Your task to perform on an android device: Open the calendar app, open the side menu, and click the "Day" option Image 0: 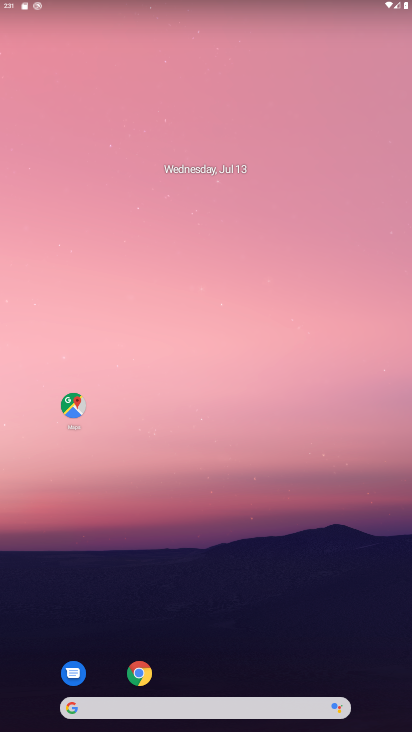
Step 0: drag from (207, 645) to (248, 198)
Your task to perform on an android device: Open the calendar app, open the side menu, and click the "Day" option Image 1: 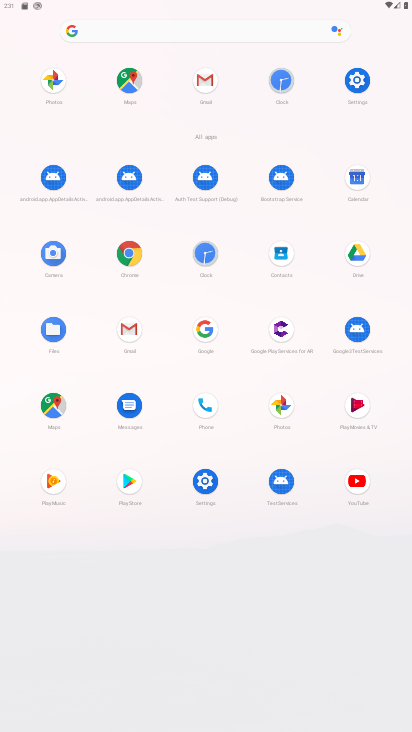
Step 1: click (355, 177)
Your task to perform on an android device: Open the calendar app, open the side menu, and click the "Day" option Image 2: 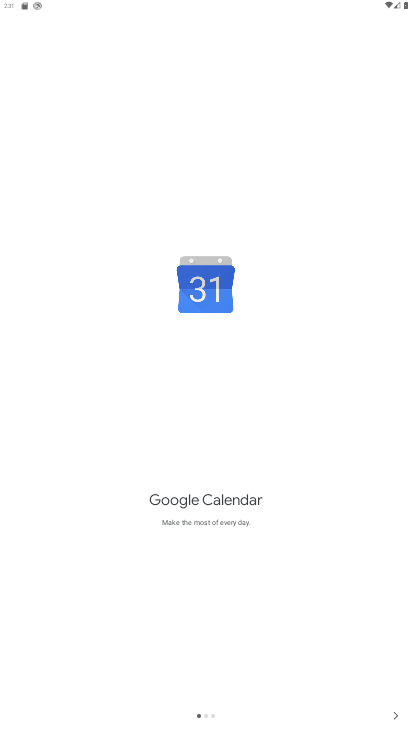
Step 2: click (394, 712)
Your task to perform on an android device: Open the calendar app, open the side menu, and click the "Day" option Image 3: 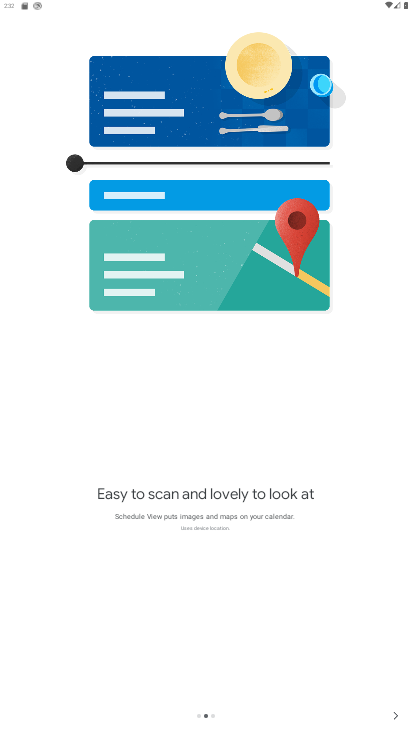
Step 3: click (394, 712)
Your task to perform on an android device: Open the calendar app, open the side menu, and click the "Day" option Image 4: 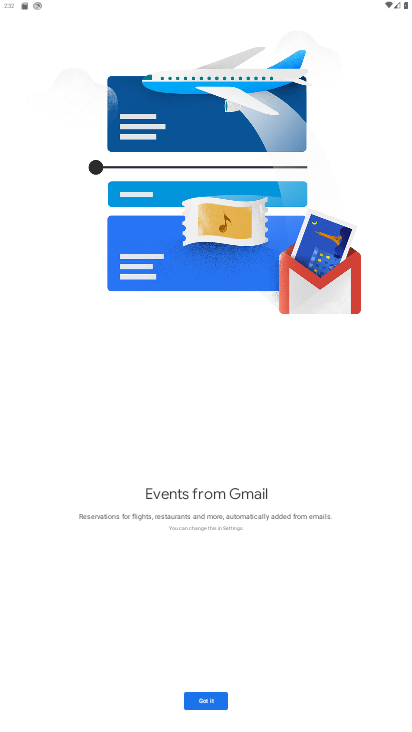
Step 4: click (206, 710)
Your task to perform on an android device: Open the calendar app, open the side menu, and click the "Day" option Image 5: 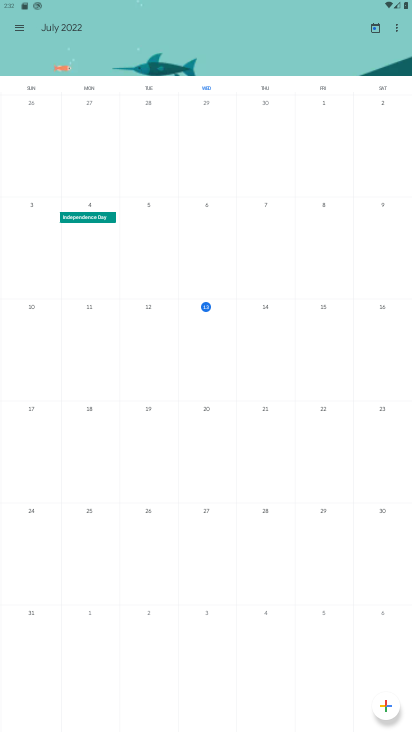
Step 5: click (26, 23)
Your task to perform on an android device: Open the calendar app, open the side menu, and click the "Day" option Image 6: 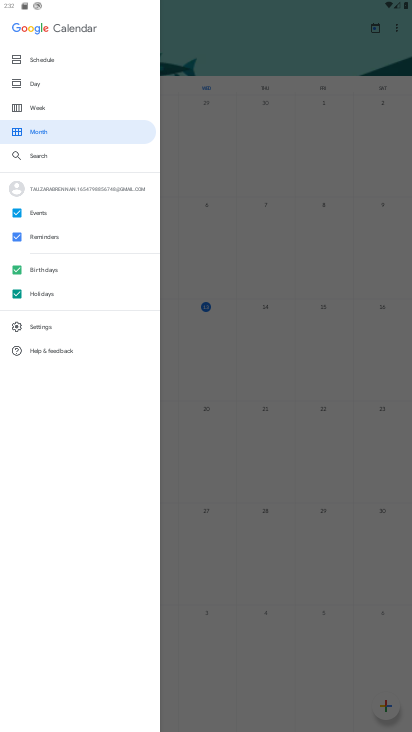
Step 6: click (52, 79)
Your task to perform on an android device: Open the calendar app, open the side menu, and click the "Day" option Image 7: 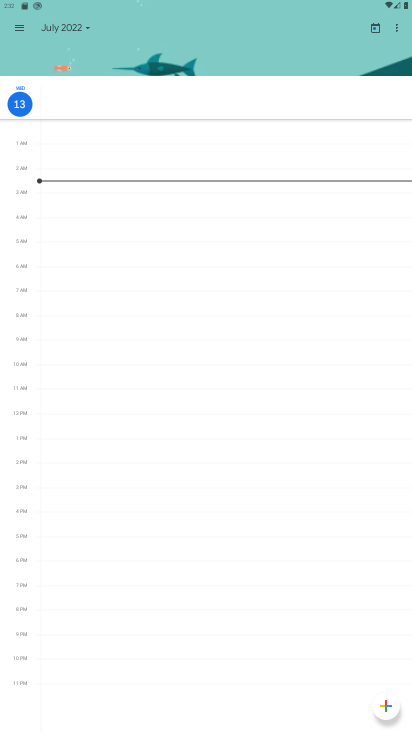
Step 7: task complete